Your task to perform on an android device: Do I have any events tomorrow? Image 0: 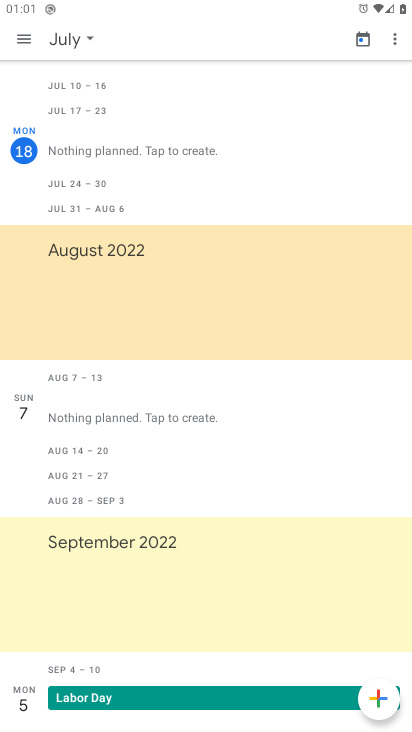
Step 0: press home button
Your task to perform on an android device: Do I have any events tomorrow? Image 1: 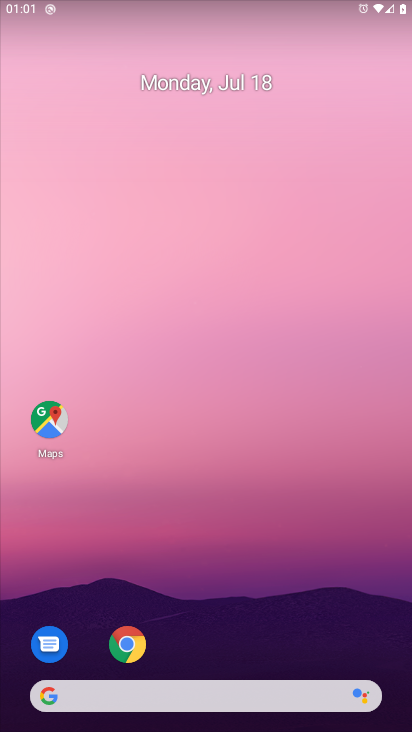
Step 1: drag from (267, 441) to (261, 57)
Your task to perform on an android device: Do I have any events tomorrow? Image 2: 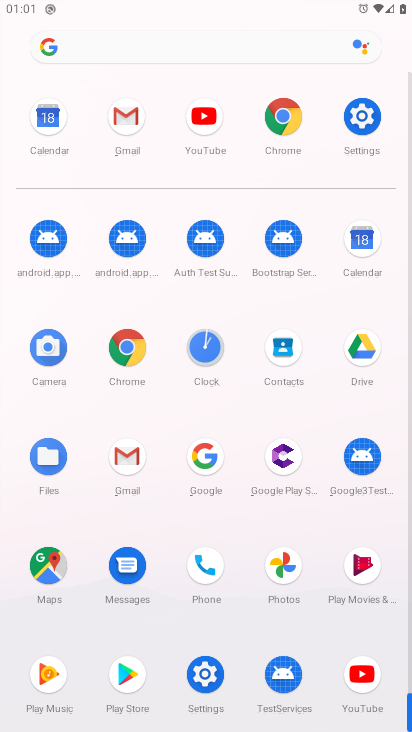
Step 2: click (356, 239)
Your task to perform on an android device: Do I have any events tomorrow? Image 3: 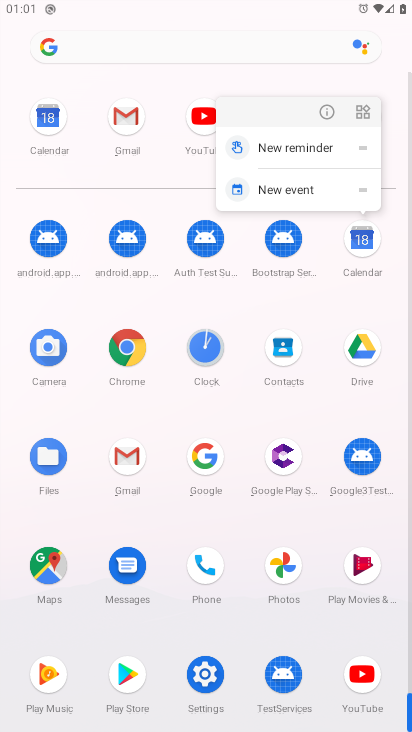
Step 3: click (364, 246)
Your task to perform on an android device: Do I have any events tomorrow? Image 4: 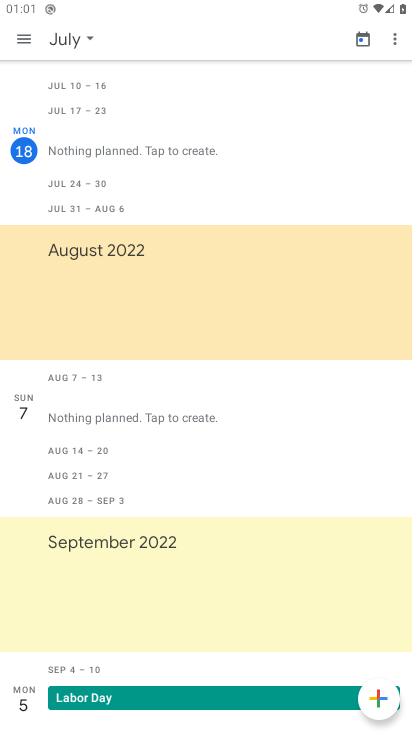
Step 4: click (17, 36)
Your task to perform on an android device: Do I have any events tomorrow? Image 5: 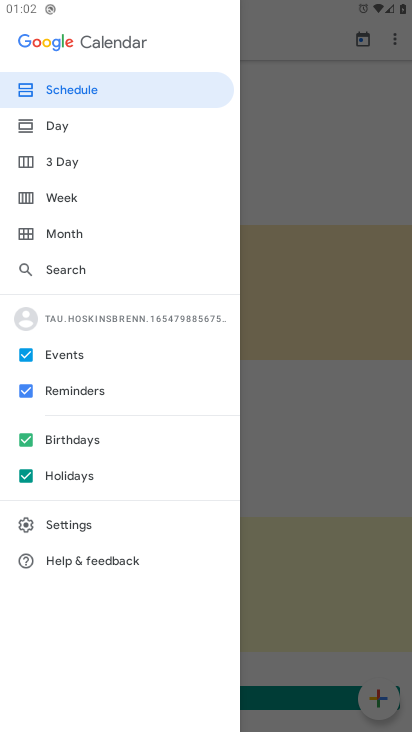
Step 5: click (43, 123)
Your task to perform on an android device: Do I have any events tomorrow? Image 6: 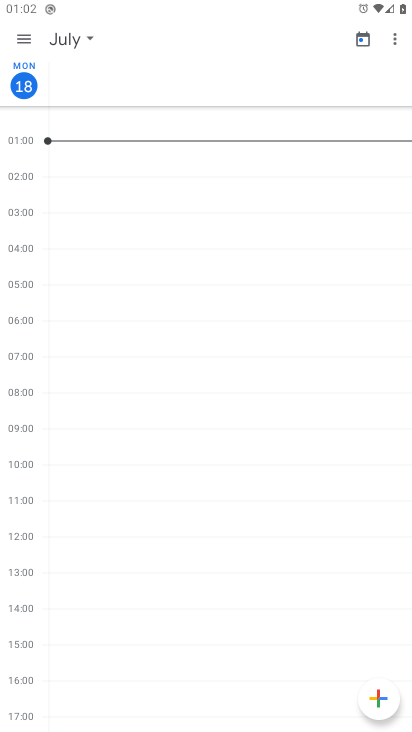
Step 6: task complete